Your task to perform on an android device: Go to calendar. Show me events next week Image 0: 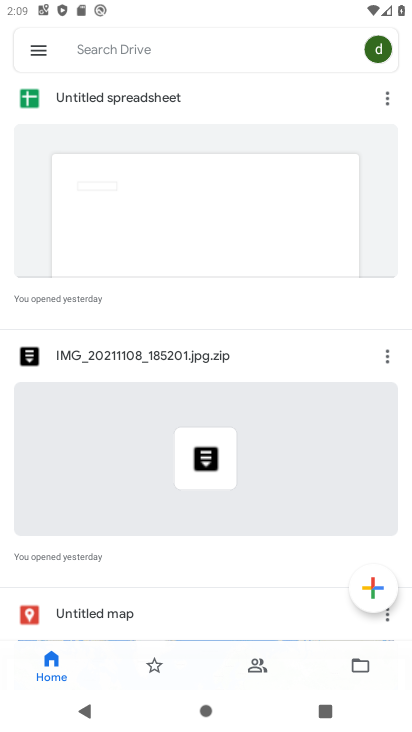
Step 0: press home button
Your task to perform on an android device: Go to calendar. Show me events next week Image 1: 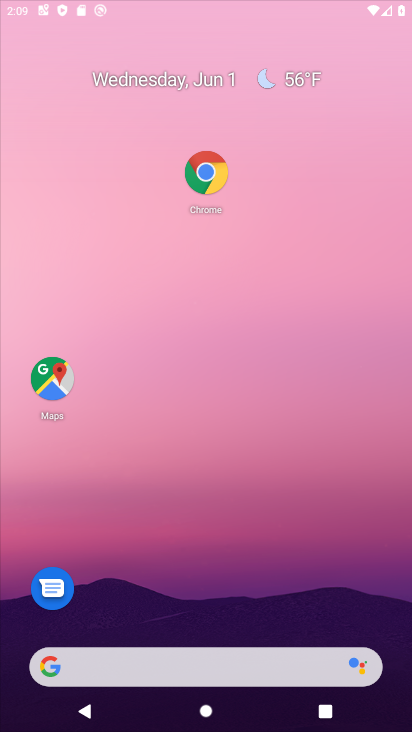
Step 1: drag from (178, 144) to (173, 94)
Your task to perform on an android device: Go to calendar. Show me events next week Image 2: 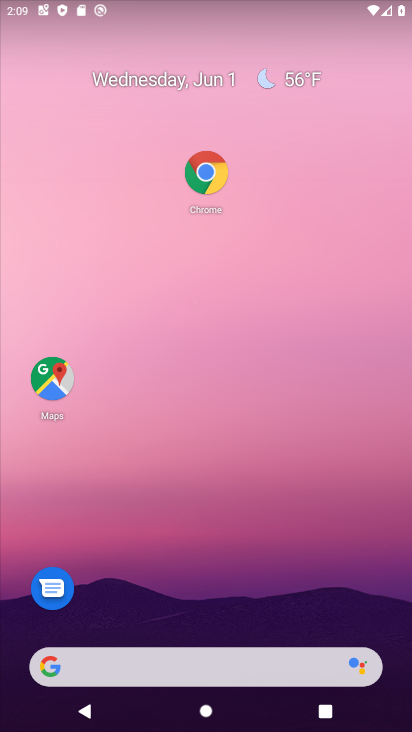
Step 2: drag from (225, 551) to (200, 16)
Your task to perform on an android device: Go to calendar. Show me events next week Image 3: 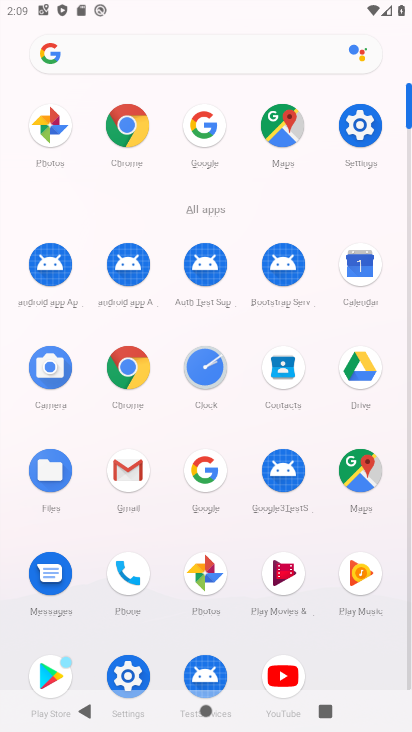
Step 3: click (360, 261)
Your task to perform on an android device: Go to calendar. Show me events next week Image 4: 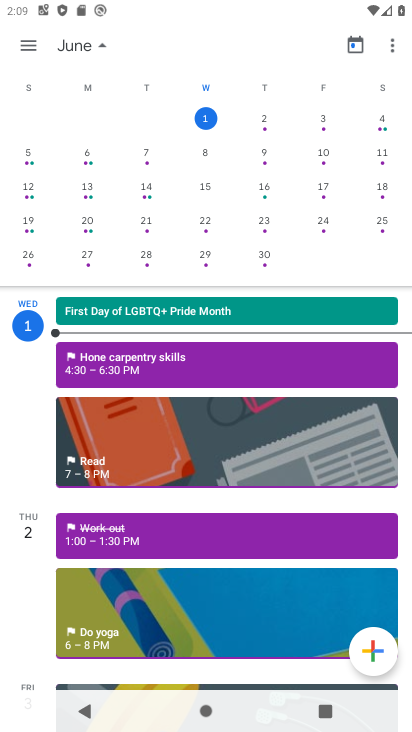
Step 4: click (265, 149)
Your task to perform on an android device: Go to calendar. Show me events next week Image 5: 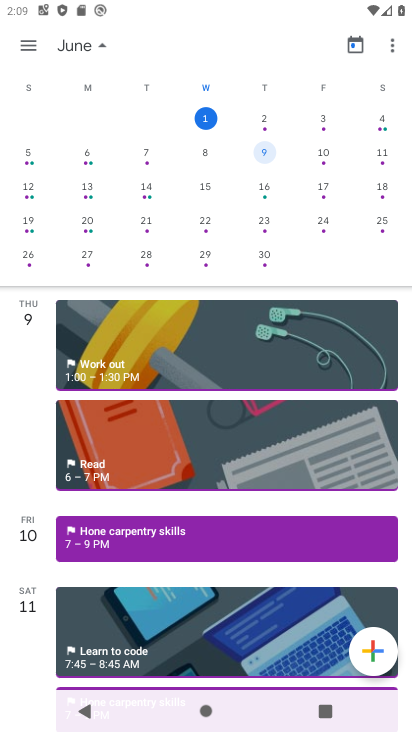
Step 5: task complete